Your task to perform on an android device: check battery use Image 0: 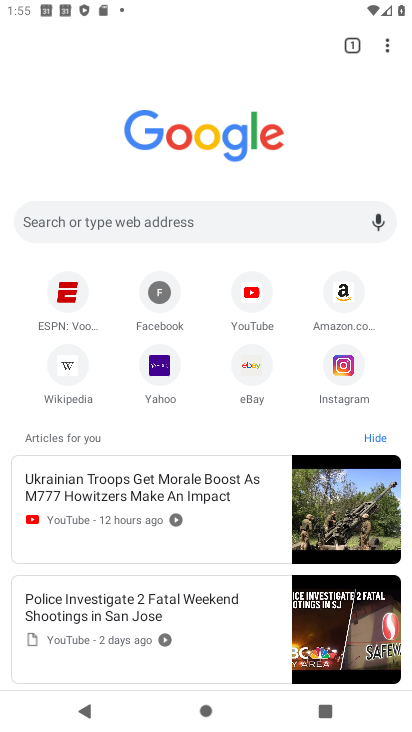
Step 0: press home button
Your task to perform on an android device: check battery use Image 1: 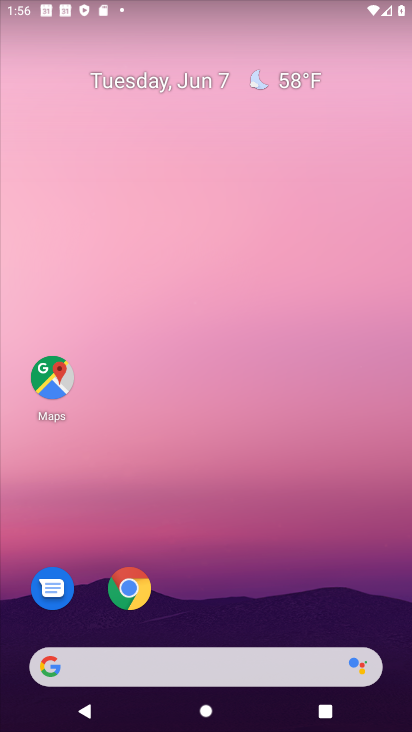
Step 1: drag from (276, 602) to (219, 257)
Your task to perform on an android device: check battery use Image 2: 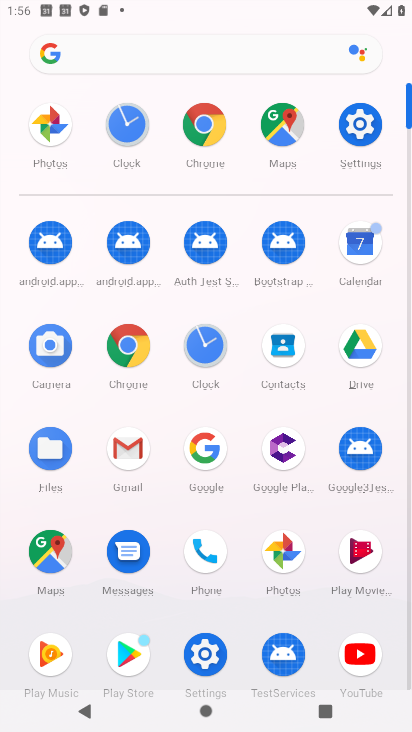
Step 2: click (360, 119)
Your task to perform on an android device: check battery use Image 3: 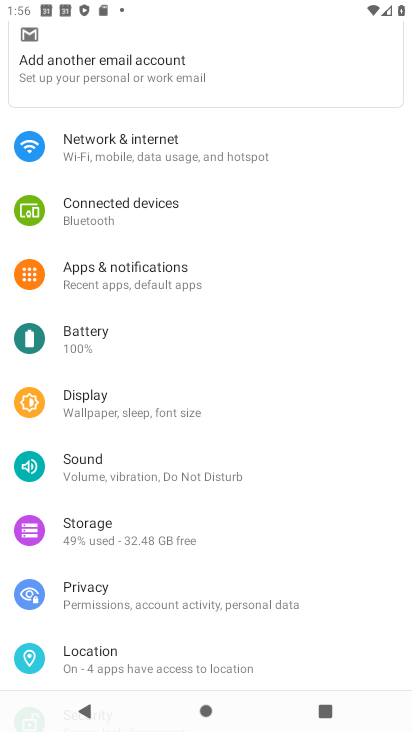
Step 3: click (165, 354)
Your task to perform on an android device: check battery use Image 4: 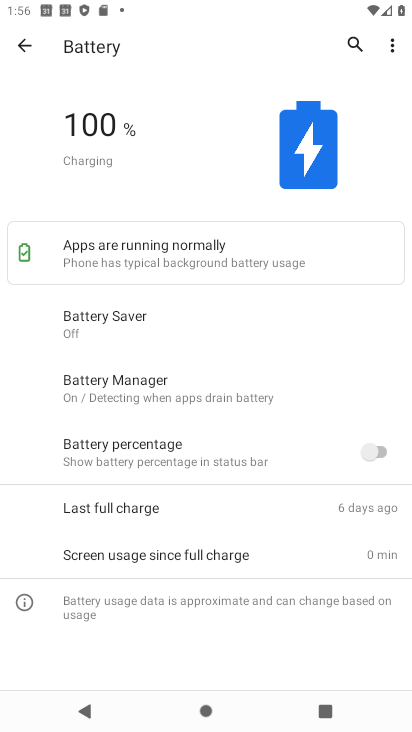
Step 4: task complete